Your task to perform on an android device: Open Yahoo.com Image 0: 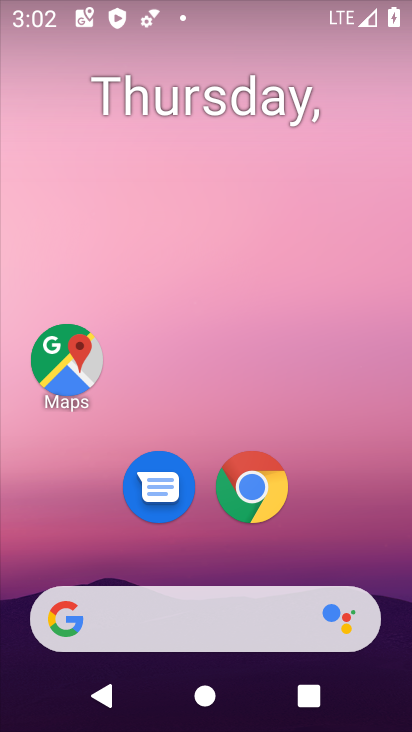
Step 0: click (222, 481)
Your task to perform on an android device: Open Yahoo.com Image 1: 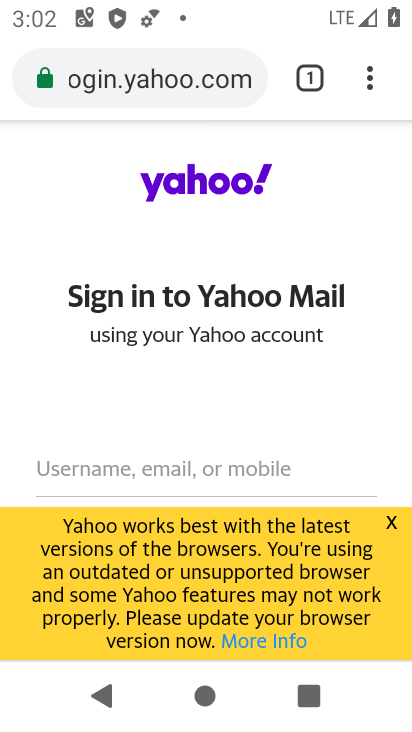
Step 1: task complete